Your task to perform on an android device: Go to ESPN.com Image 0: 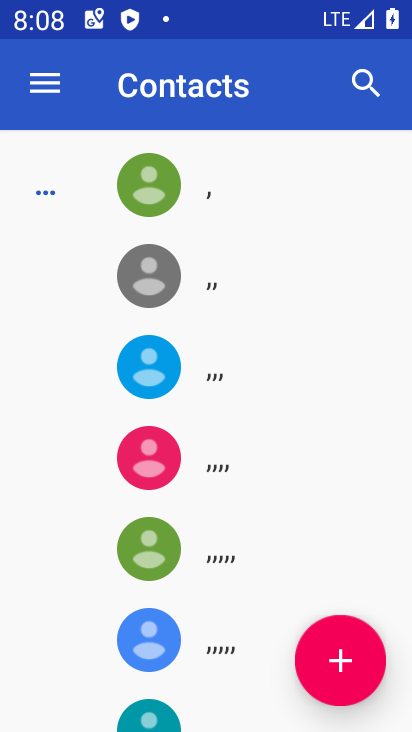
Step 0: press home button
Your task to perform on an android device: Go to ESPN.com Image 1: 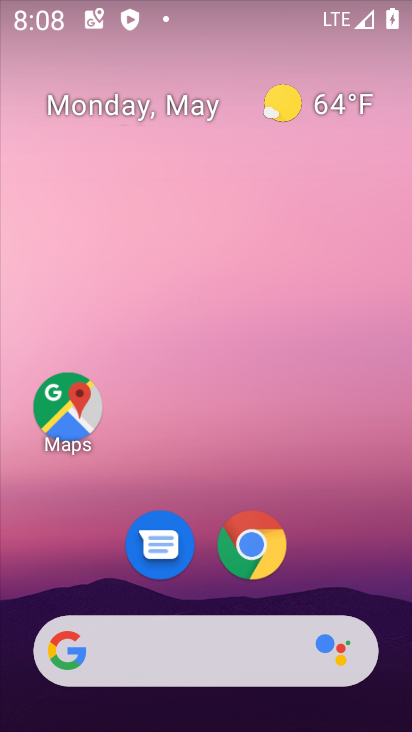
Step 1: click (259, 582)
Your task to perform on an android device: Go to ESPN.com Image 2: 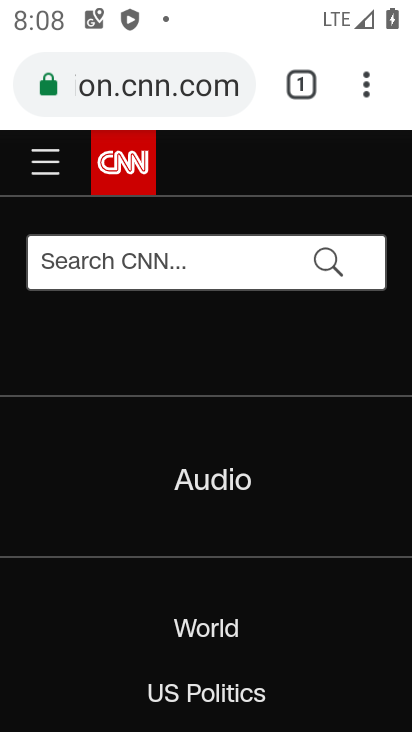
Step 2: click (147, 100)
Your task to perform on an android device: Go to ESPN.com Image 3: 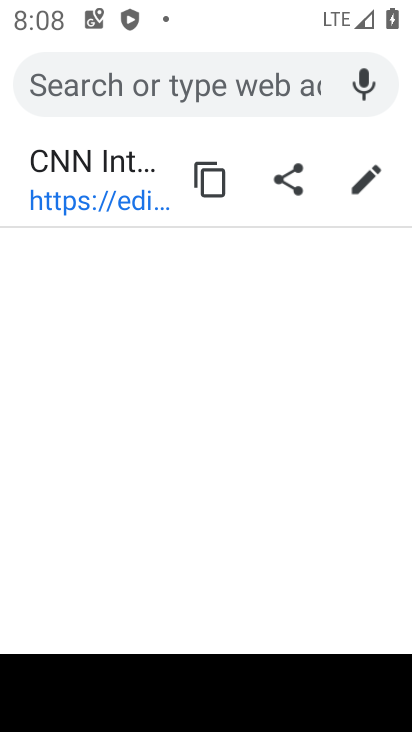
Step 3: type "espn.com"
Your task to perform on an android device: Go to ESPN.com Image 4: 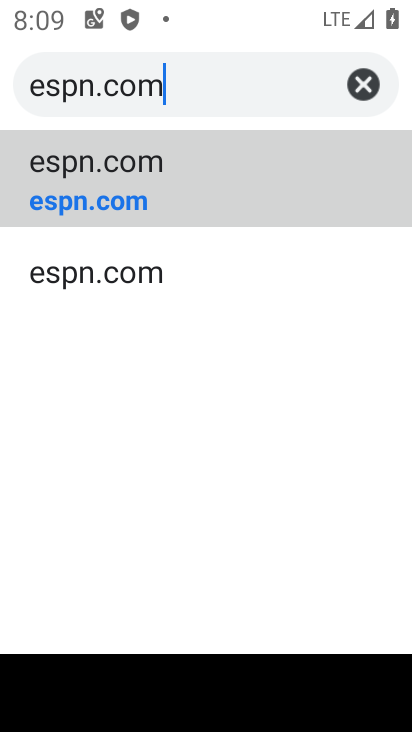
Step 4: click (169, 172)
Your task to perform on an android device: Go to ESPN.com Image 5: 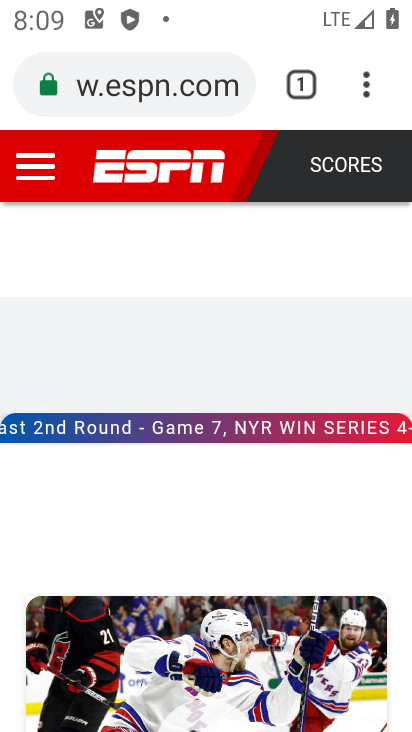
Step 5: task complete